Your task to perform on an android device: check android version Image 0: 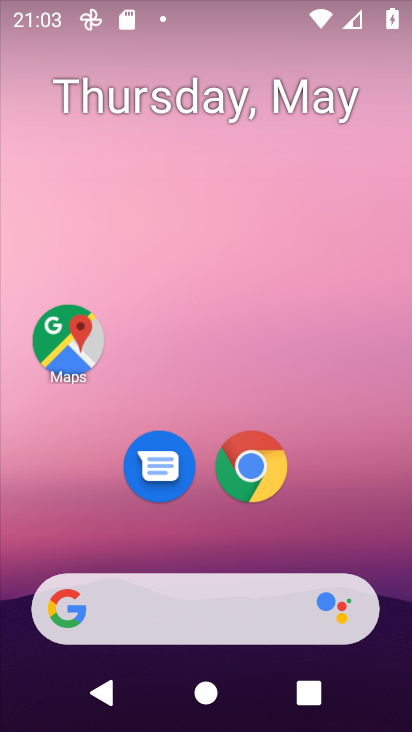
Step 0: drag from (356, 542) to (358, 126)
Your task to perform on an android device: check android version Image 1: 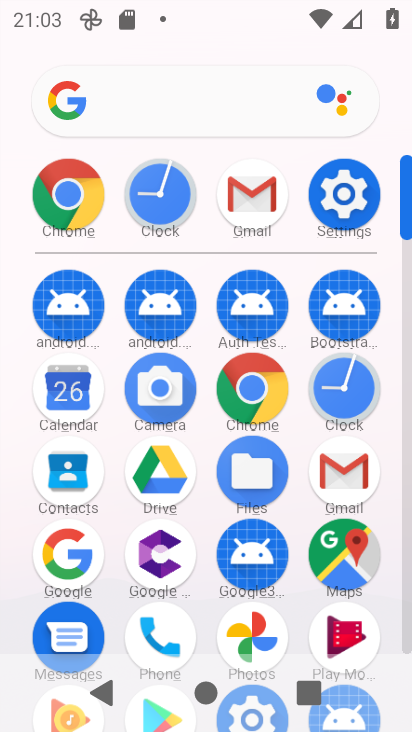
Step 1: click (337, 216)
Your task to perform on an android device: check android version Image 2: 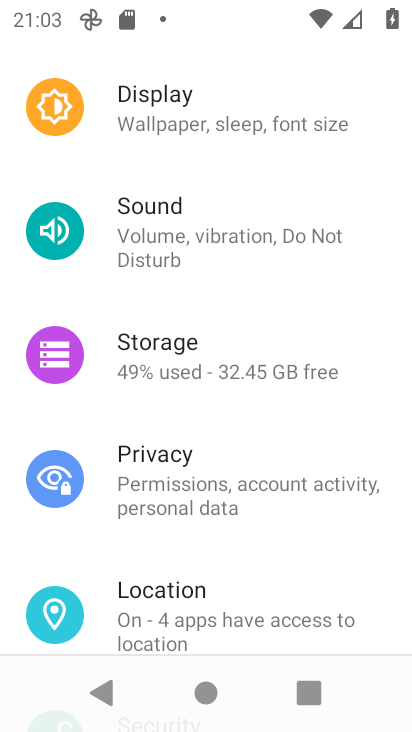
Step 2: drag from (178, 567) to (170, 148)
Your task to perform on an android device: check android version Image 3: 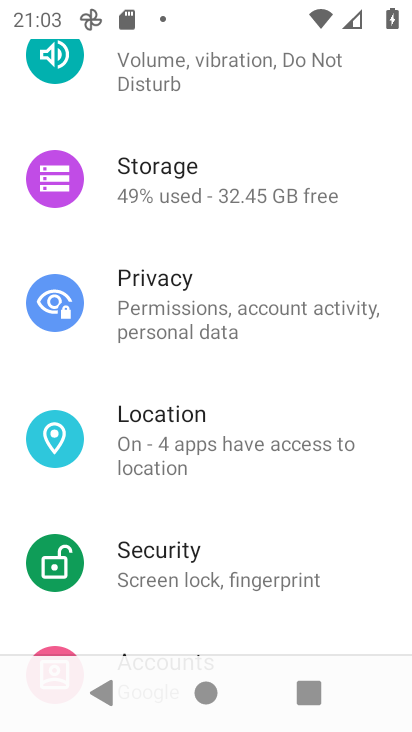
Step 3: drag from (287, 523) to (283, 213)
Your task to perform on an android device: check android version Image 4: 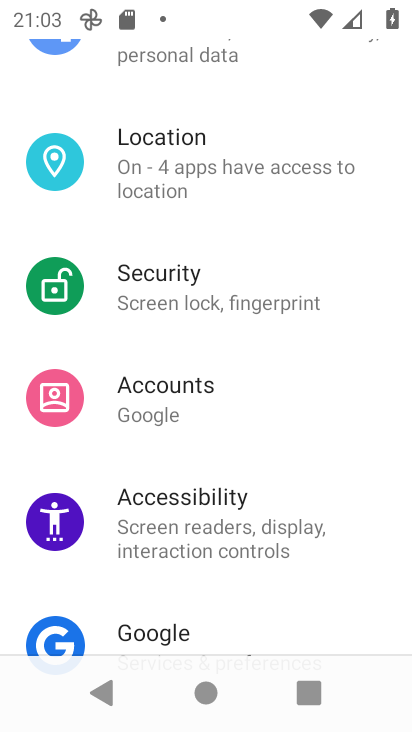
Step 4: drag from (323, 635) to (354, 201)
Your task to perform on an android device: check android version Image 5: 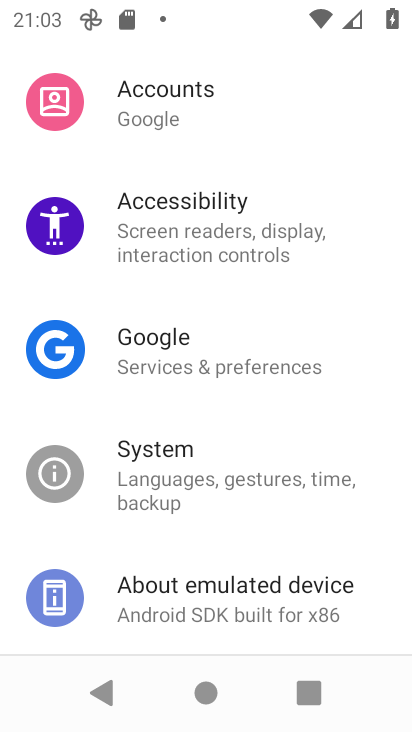
Step 5: click (299, 582)
Your task to perform on an android device: check android version Image 6: 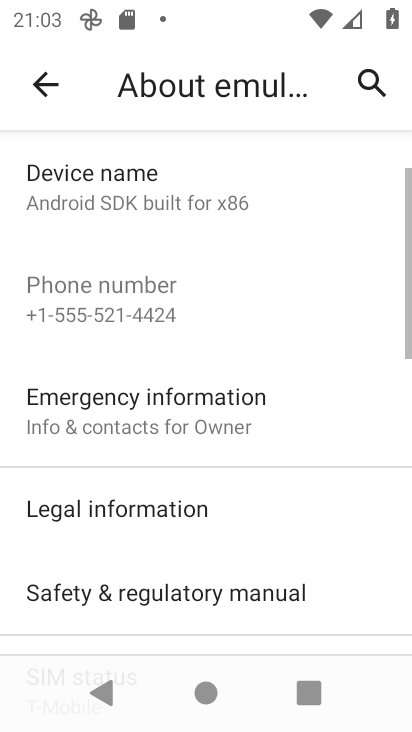
Step 6: task complete